Your task to perform on an android device: Open location settings Image 0: 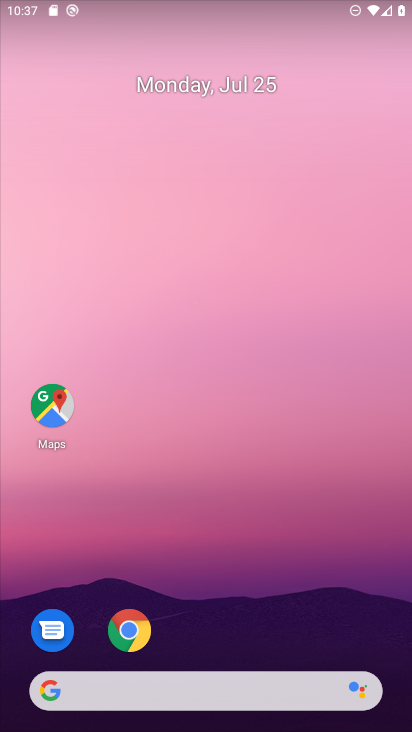
Step 0: drag from (322, 613) to (234, 116)
Your task to perform on an android device: Open location settings Image 1: 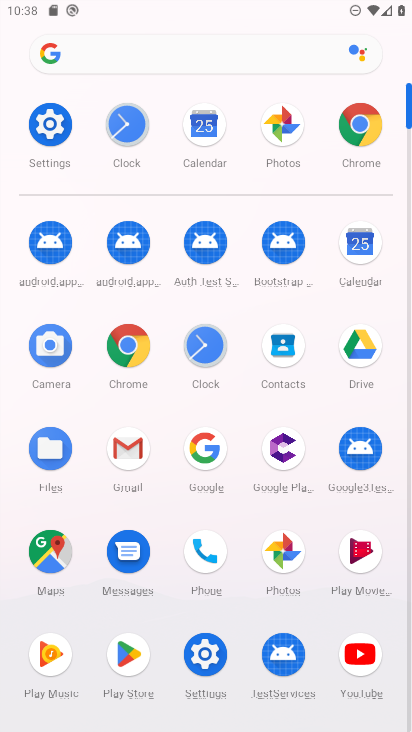
Step 1: click (50, 129)
Your task to perform on an android device: Open location settings Image 2: 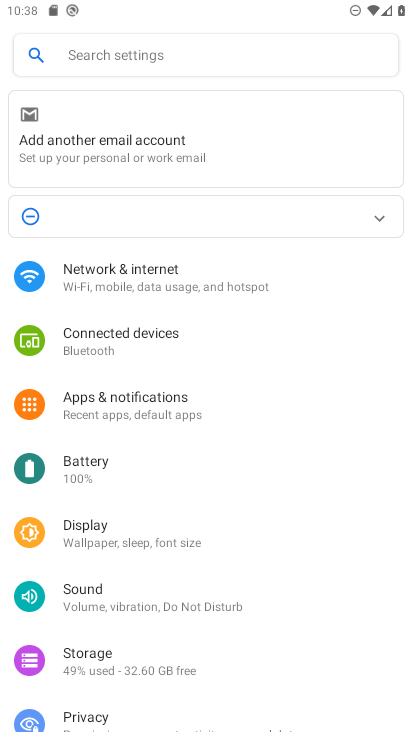
Step 2: drag from (228, 681) to (230, 295)
Your task to perform on an android device: Open location settings Image 3: 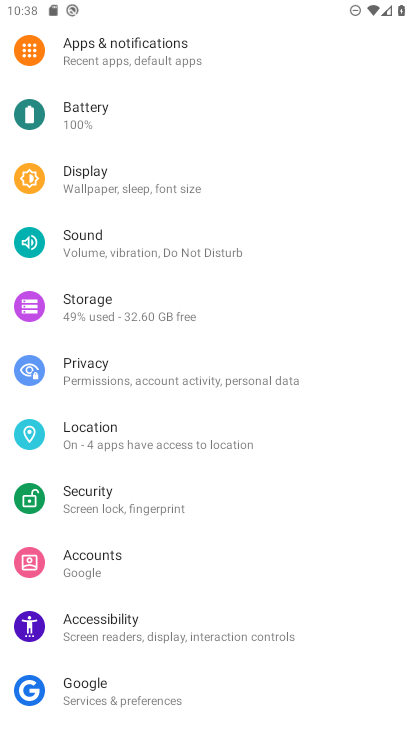
Step 3: click (128, 437)
Your task to perform on an android device: Open location settings Image 4: 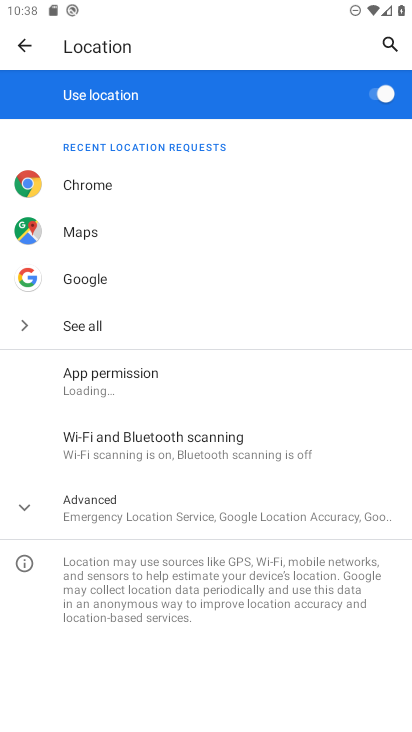
Step 4: task complete